Your task to perform on an android device: Go to Android settings Image 0: 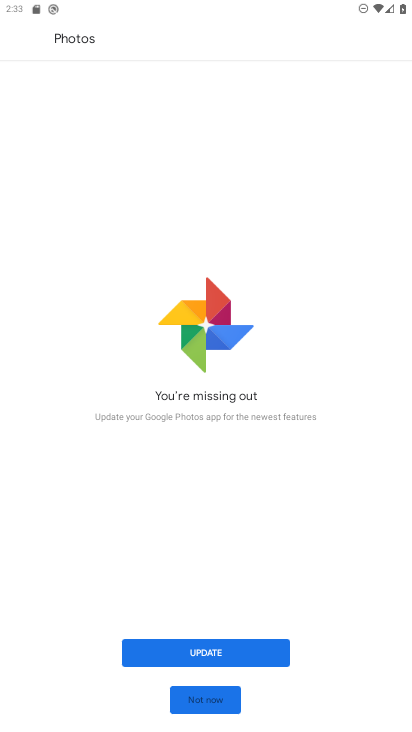
Step 0: press home button
Your task to perform on an android device: Go to Android settings Image 1: 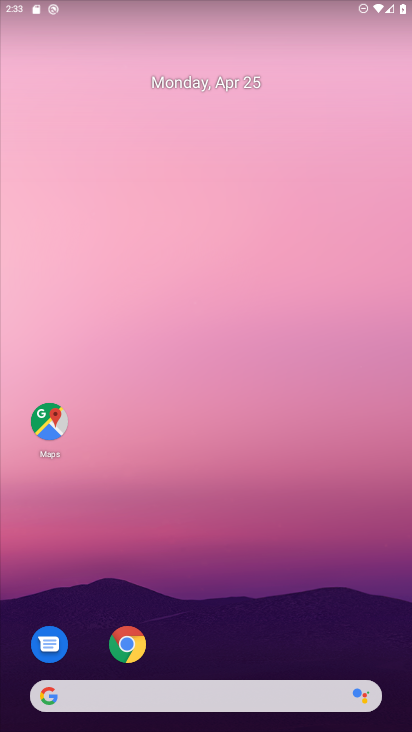
Step 1: drag from (224, 607) to (200, 252)
Your task to perform on an android device: Go to Android settings Image 2: 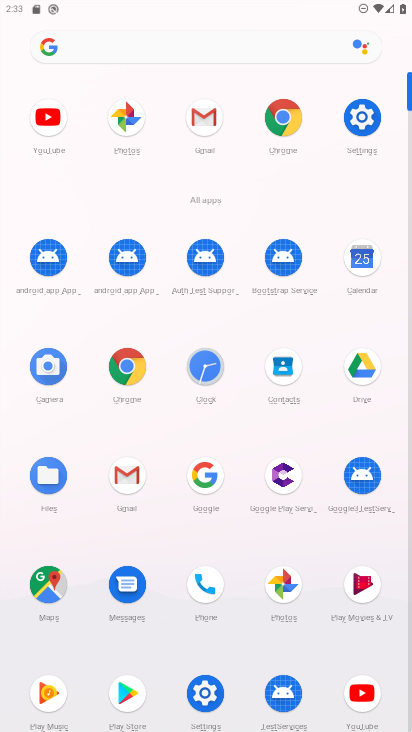
Step 2: click (337, 121)
Your task to perform on an android device: Go to Android settings Image 3: 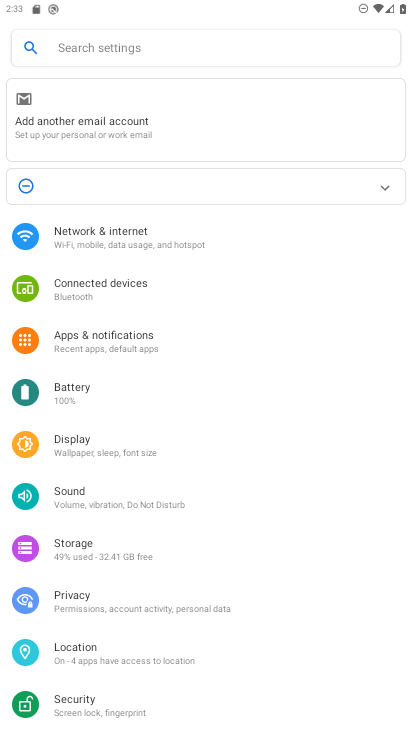
Step 3: task complete